Your task to perform on an android device: install app "Yahoo Mail" Image 0: 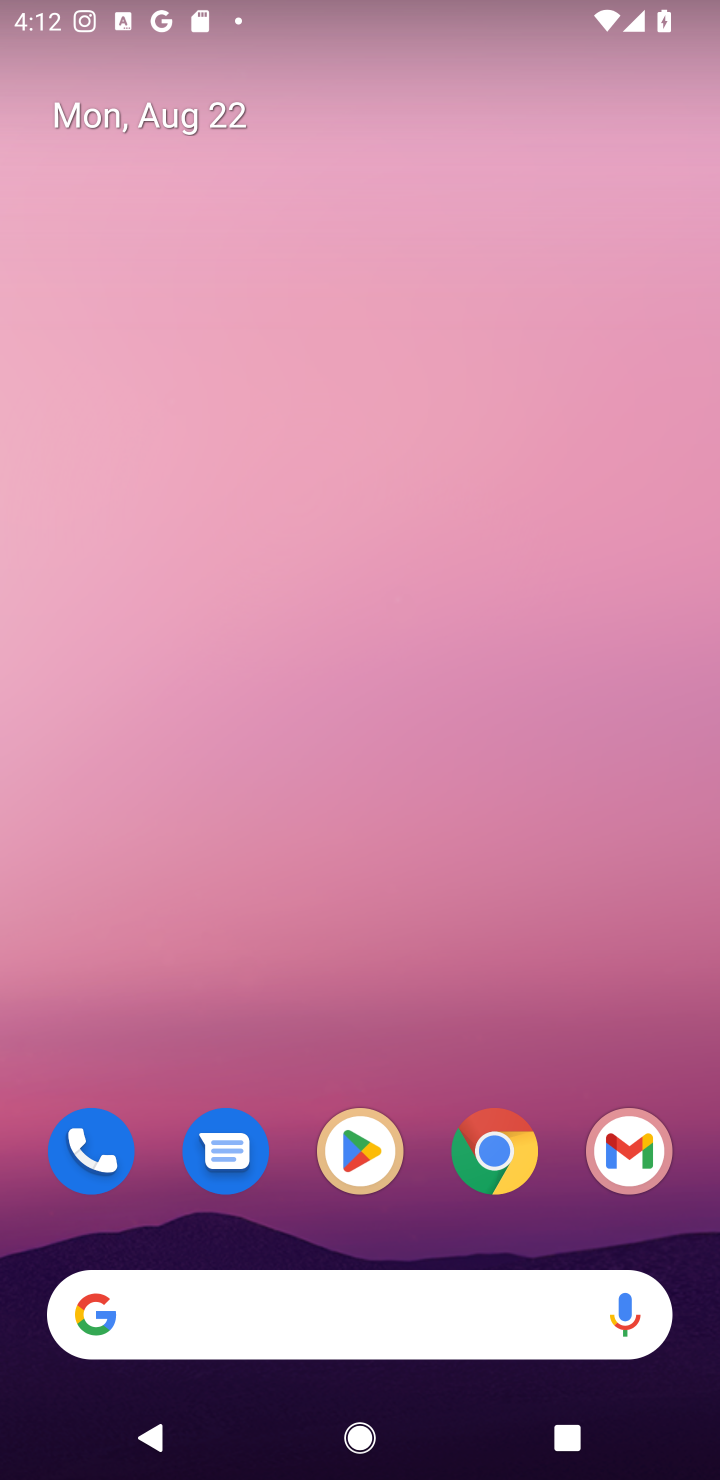
Step 0: click (353, 1139)
Your task to perform on an android device: install app "Yahoo Mail" Image 1: 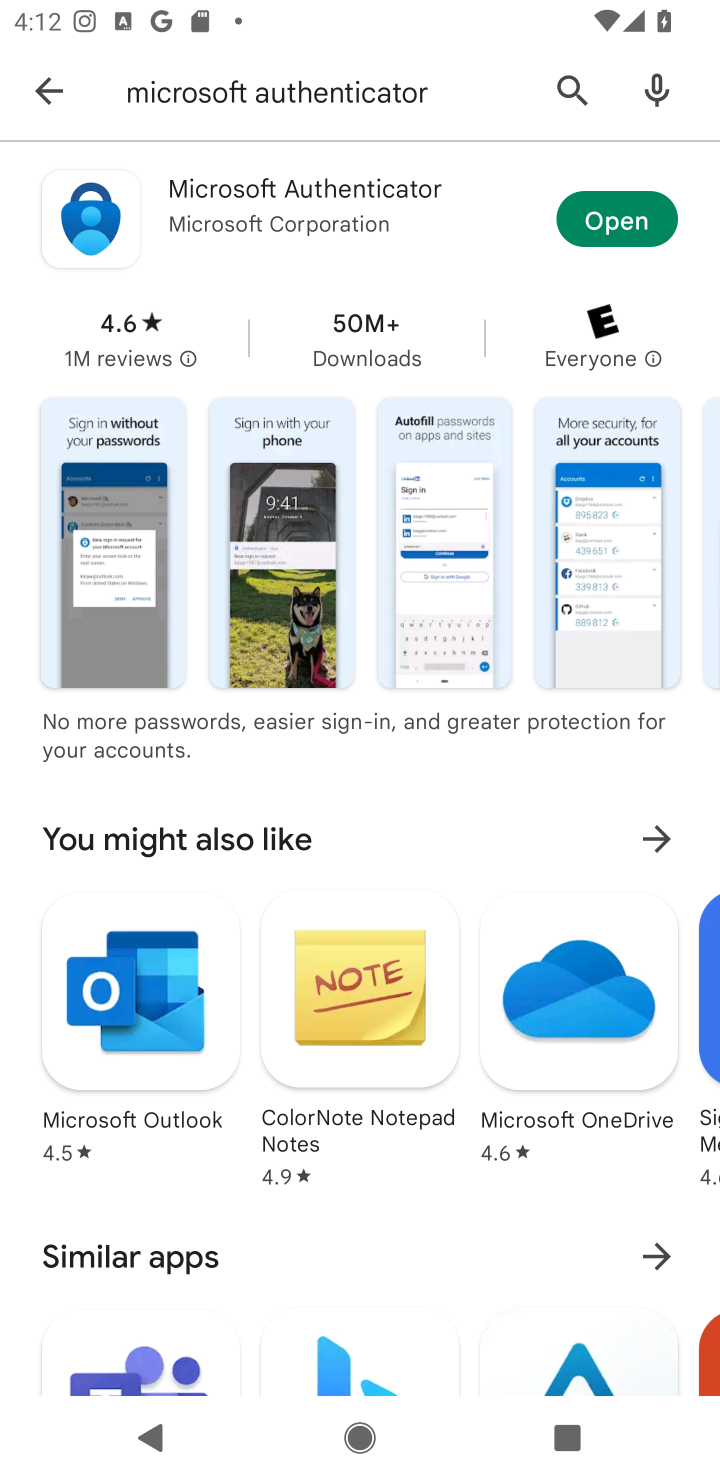
Step 1: click (564, 76)
Your task to perform on an android device: install app "Yahoo Mail" Image 2: 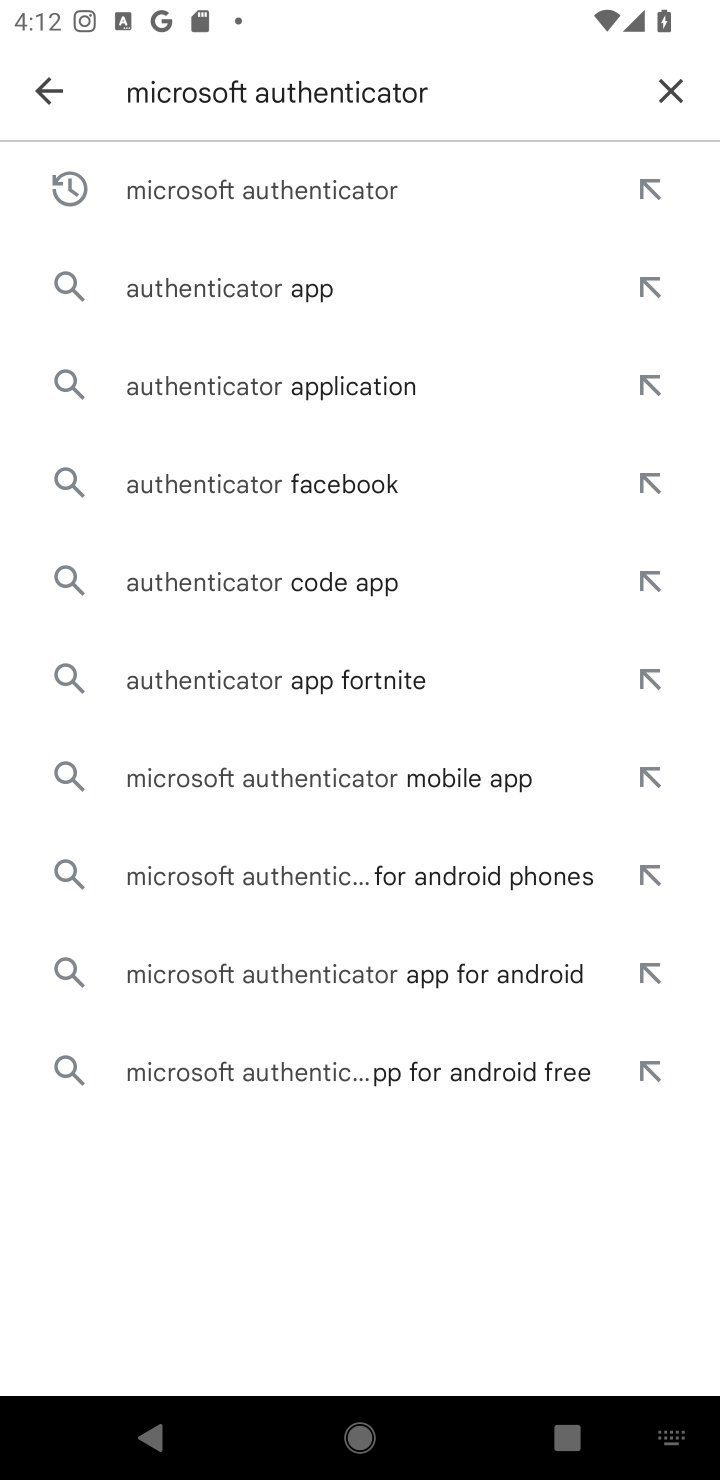
Step 2: click (675, 78)
Your task to perform on an android device: install app "Yahoo Mail" Image 3: 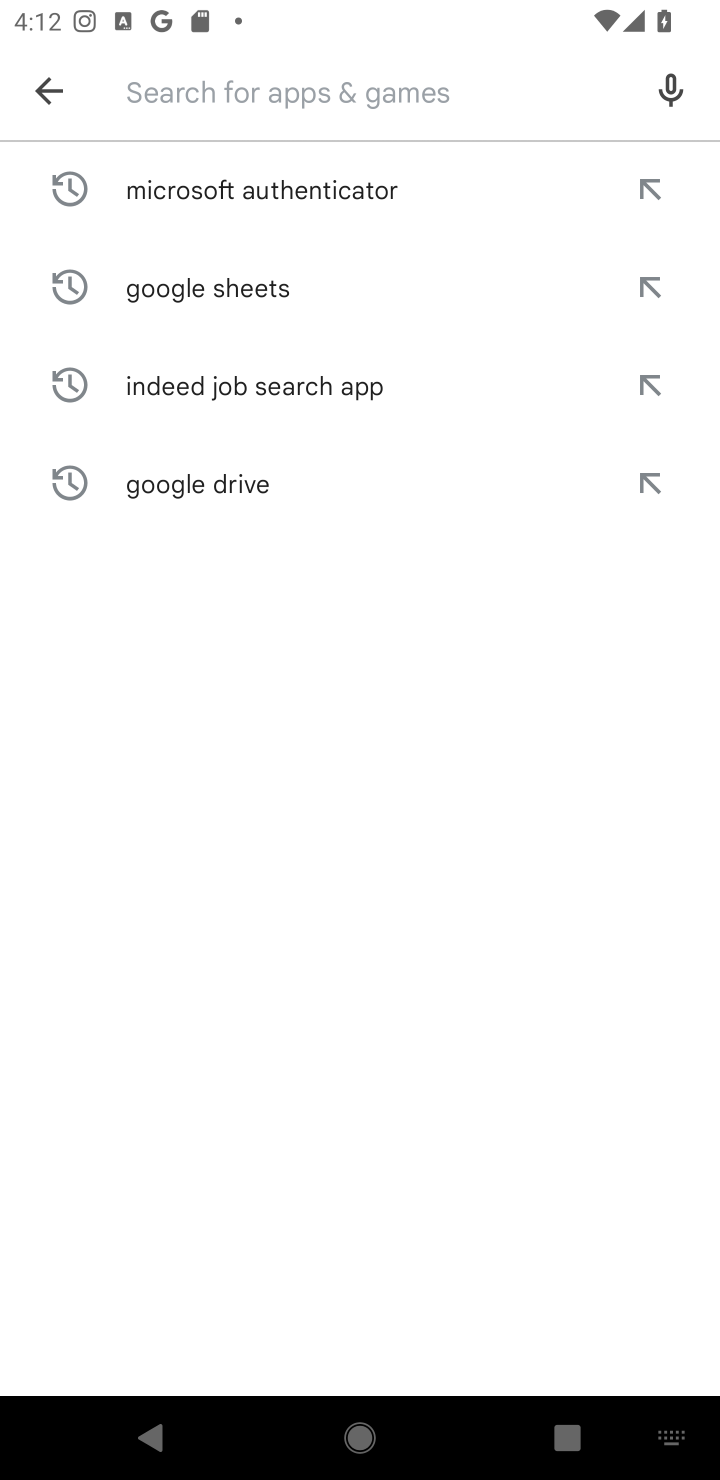
Step 3: type "Yahoo Mail"
Your task to perform on an android device: install app "Yahoo Mail" Image 4: 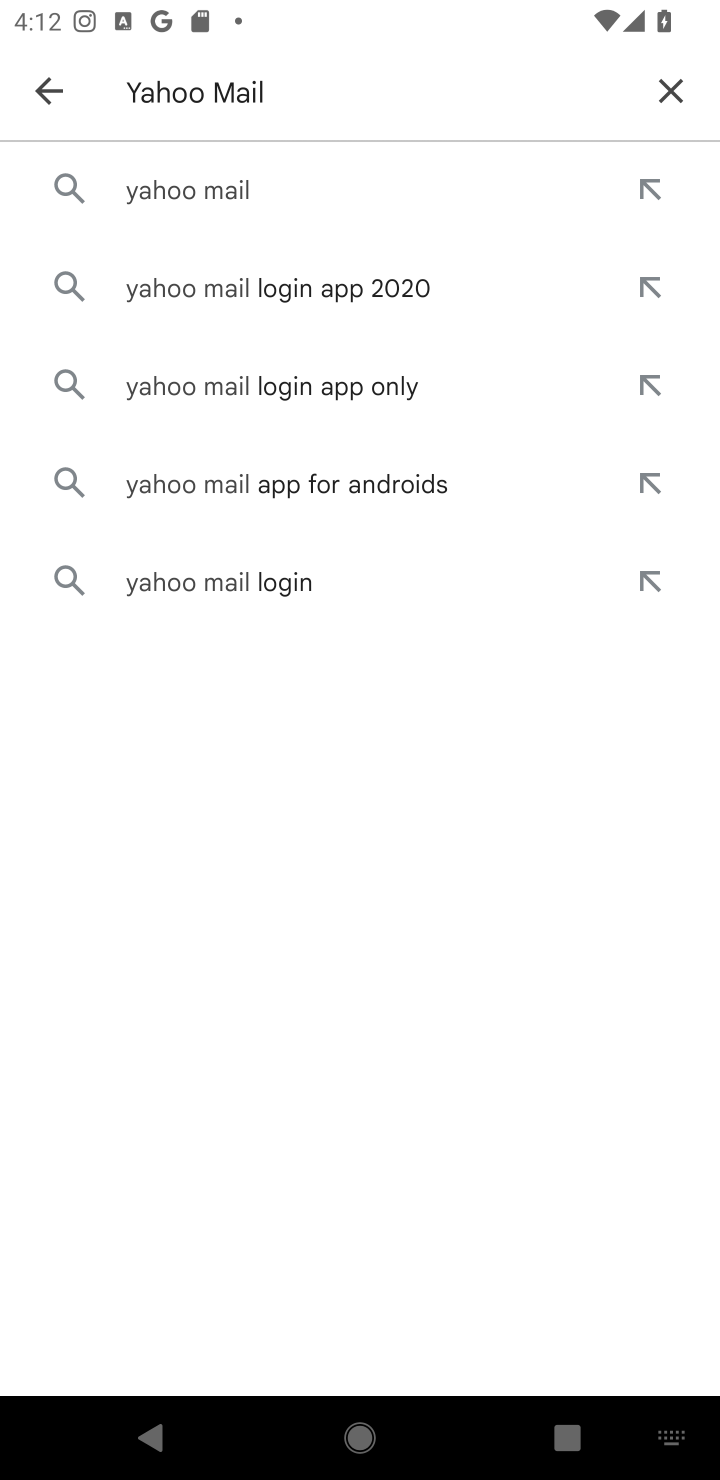
Step 4: click (200, 186)
Your task to perform on an android device: install app "Yahoo Mail" Image 5: 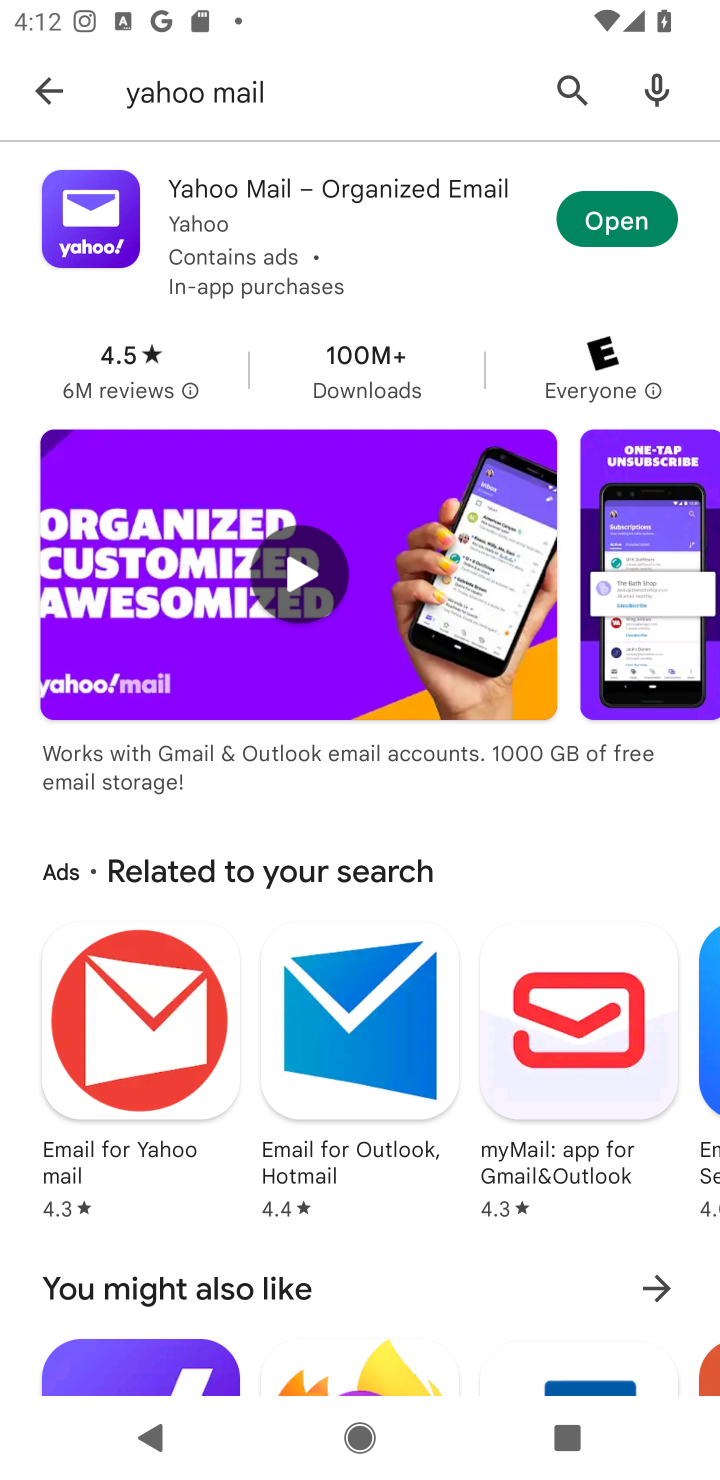
Step 5: task complete